Your task to perform on an android device: Open Google Maps Image 0: 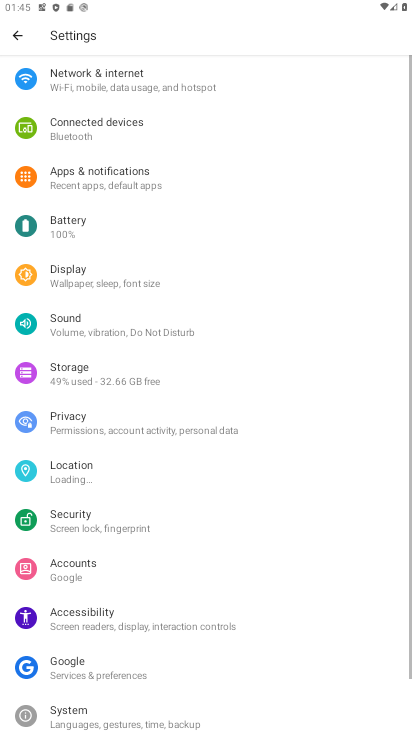
Step 0: press home button
Your task to perform on an android device: Open Google Maps Image 1: 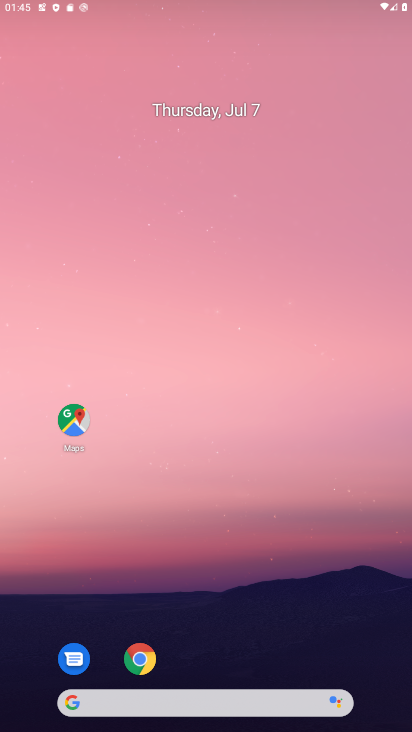
Step 1: drag from (230, 656) to (246, 58)
Your task to perform on an android device: Open Google Maps Image 2: 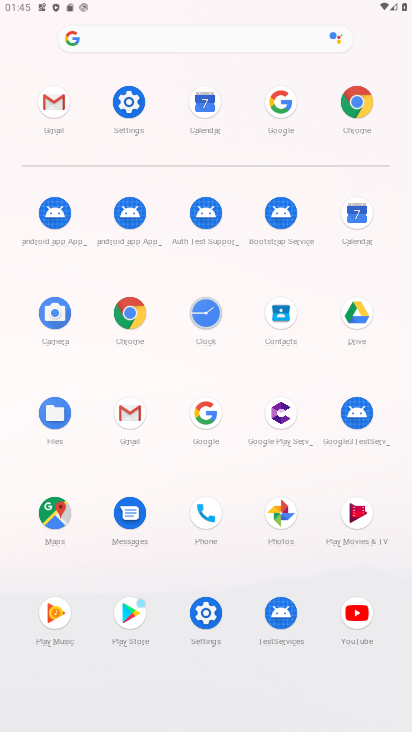
Step 2: click (56, 516)
Your task to perform on an android device: Open Google Maps Image 3: 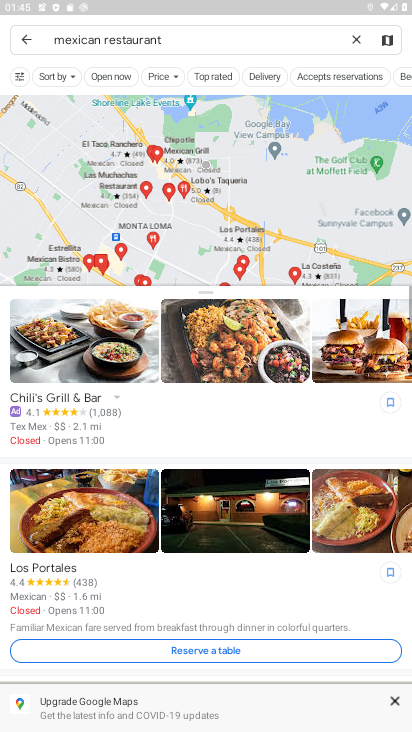
Step 3: task complete